Your task to perform on an android device: Open Google Maps Image 0: 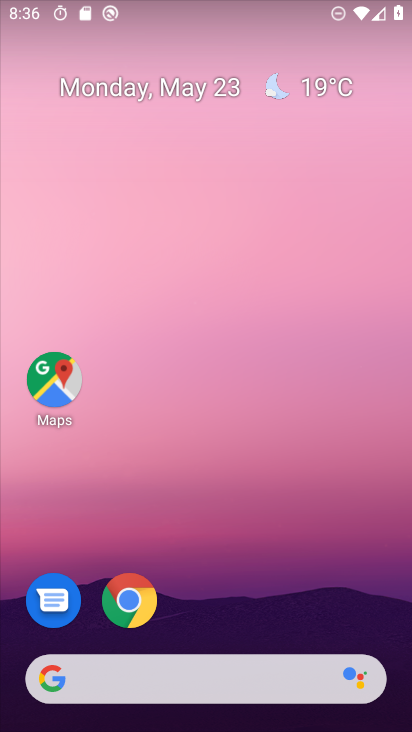
Step 0: press home button
Your task to perform on an android device: Open Google Maps Image 1: 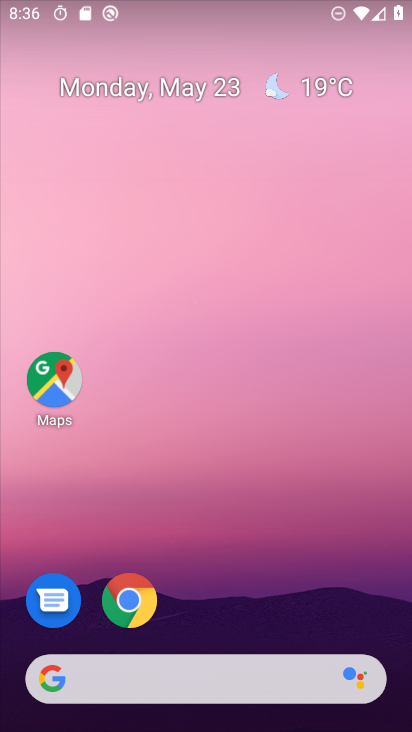
Step 1: click (61, 378)
Your task to perform on an android device: Open Google Maps Image 2: 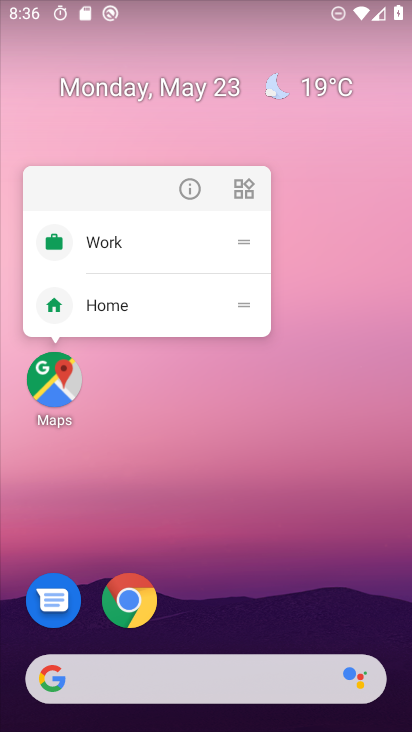
Step 2: click (45, 374)
Your task to perform on an android device: Open Google Maps Image 3: 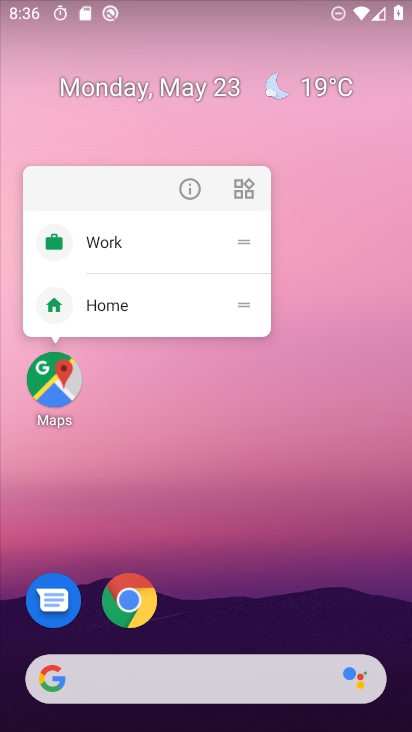
Step 3: click (54, 371)
Your task to perform on an android device: Open Google Maps Image 4: 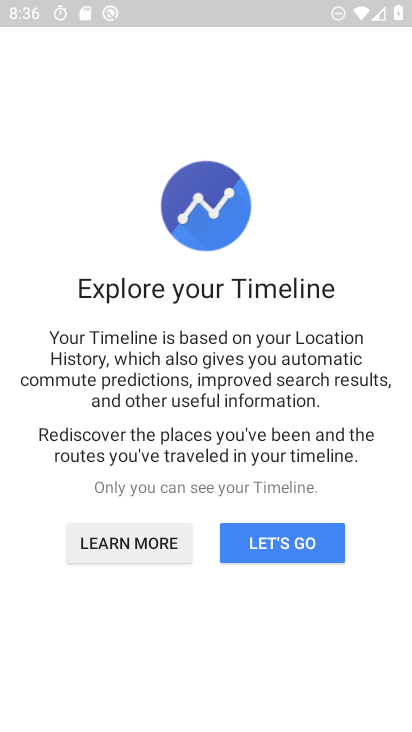
Step 4: click (169, 544)
Your task to perform on an android device: Open Google Maps Image 5: 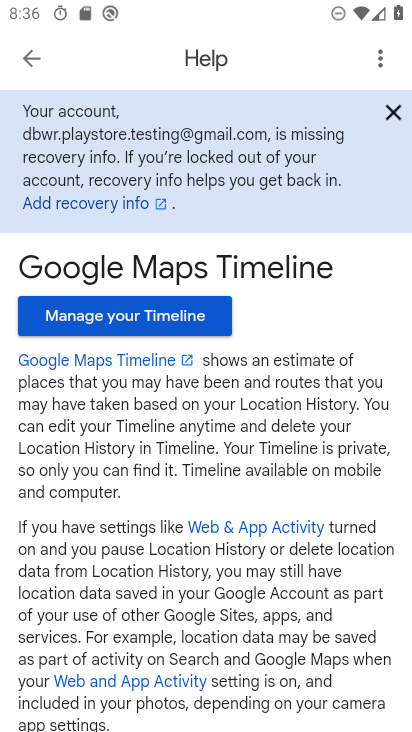
Step 5: click (398, 110)
Your task to perform on an android device: Open Google Maps Image 6: 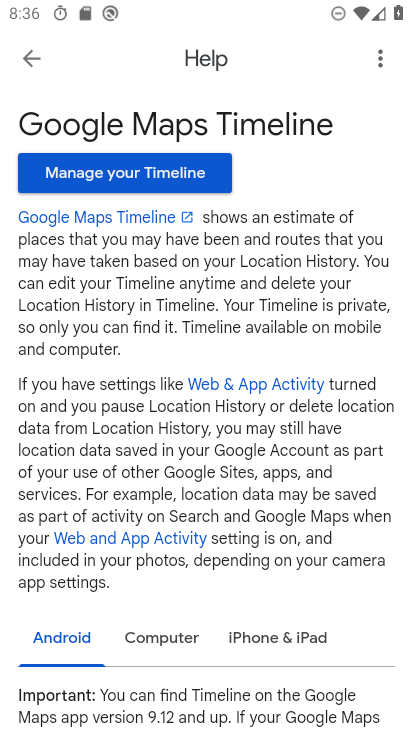
Step 6: press back button
Your task to perform on an android device: Open Google Maps Image 7: 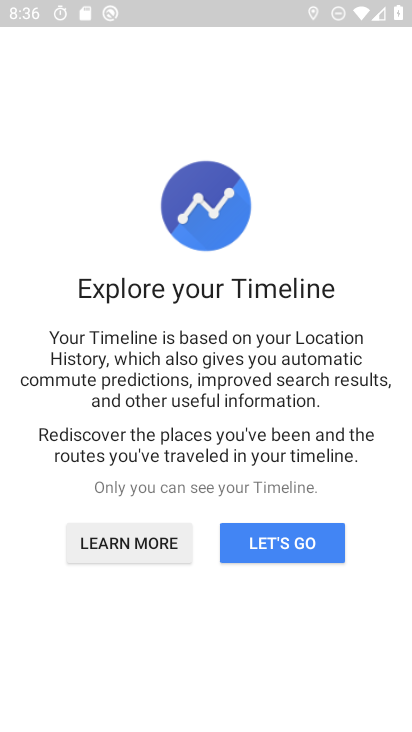
Step 7: drag from (130, 656) to (302, 153)
Your task to perform on an android device: Open Google Maps Image 8: 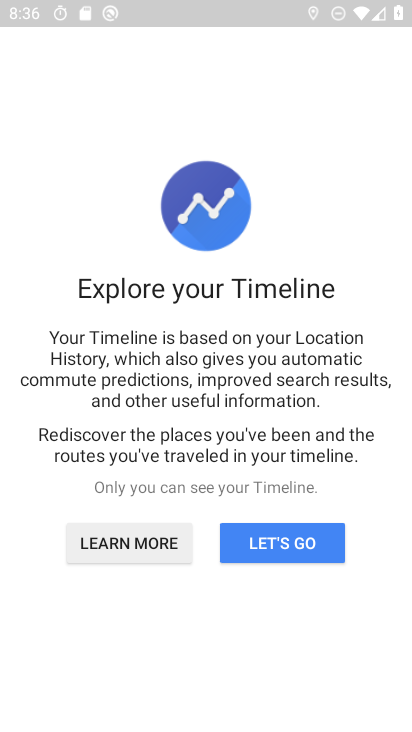
Step 8: click (271, 539)
Your task to perform on an android device: Open Google Maps Image 9: 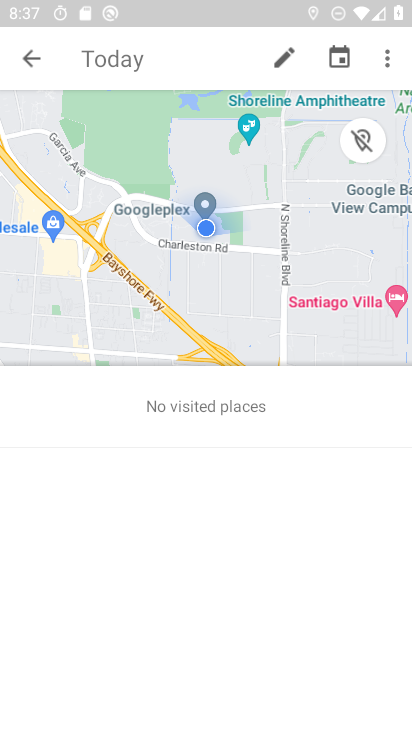
Step 9: task complete